Your task to perform on an android device: Clear the shopping cart on ebay.com. Add bose soundsport free to the cart on ebay.com, then select checkout. Image 0: 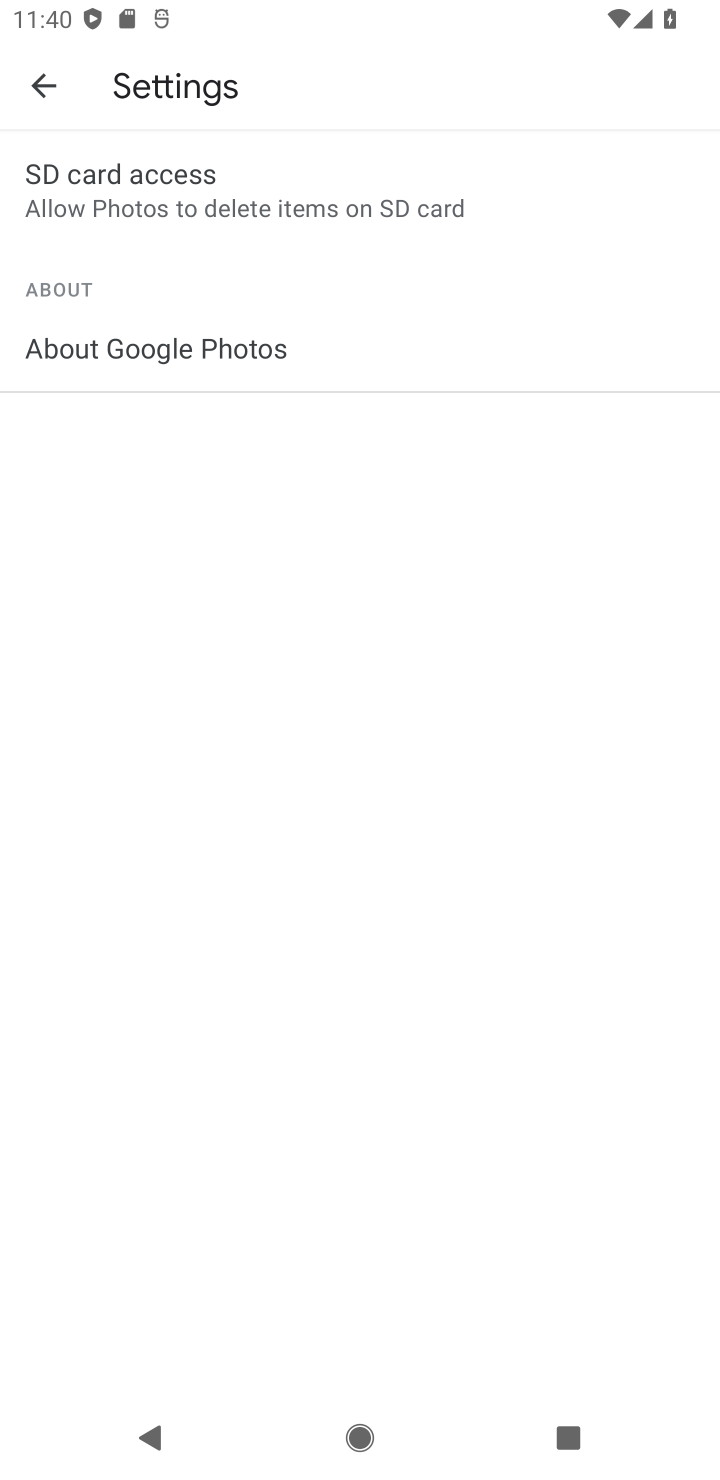
Step 0: press home button
Your task to perform on an android device: Clear the shopping cart on ebay.com. Add bose soundsport free to the cart on ebay.com, then select checkout. Image 1: 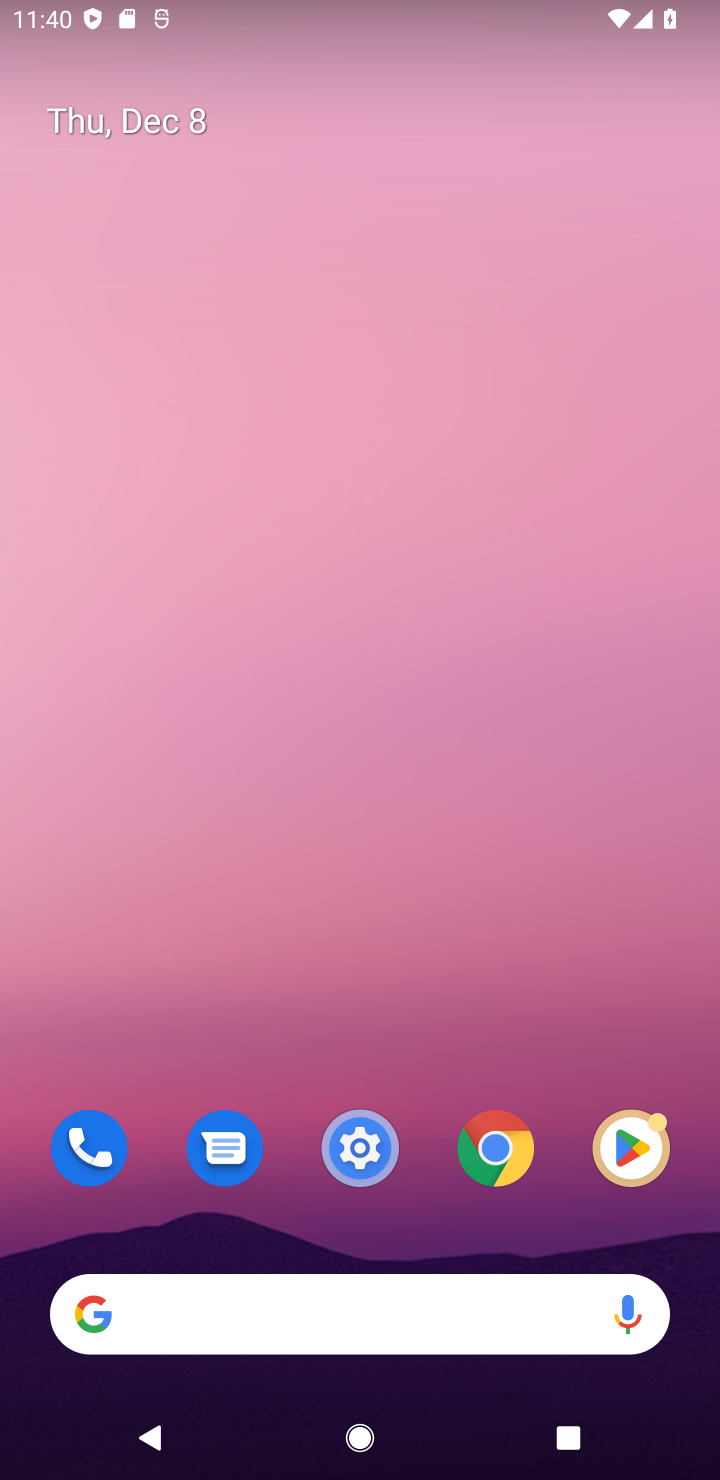
Step 1: click (240, 1333)
Your task to perform on an android device: Clear the shopping cart on ebay.com. Add bose soundsport free to the cart on ebay.com, then select checkout. Image 2: 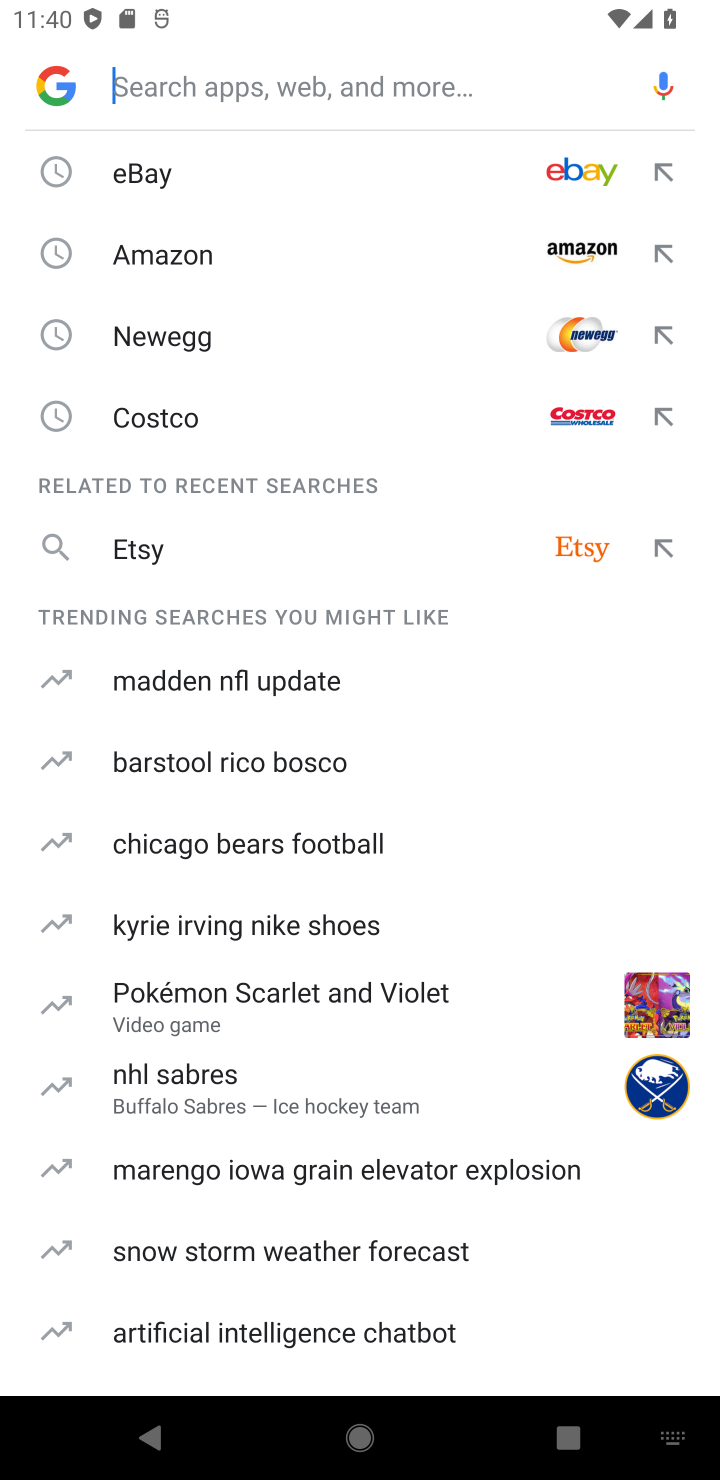
Step 2: click (140, 180)
Your task to perform on an android device: Clear the shopping cart on ebay.com. Add bose soundsport free to the cart on ebay.com, then select checkout. Image 3: 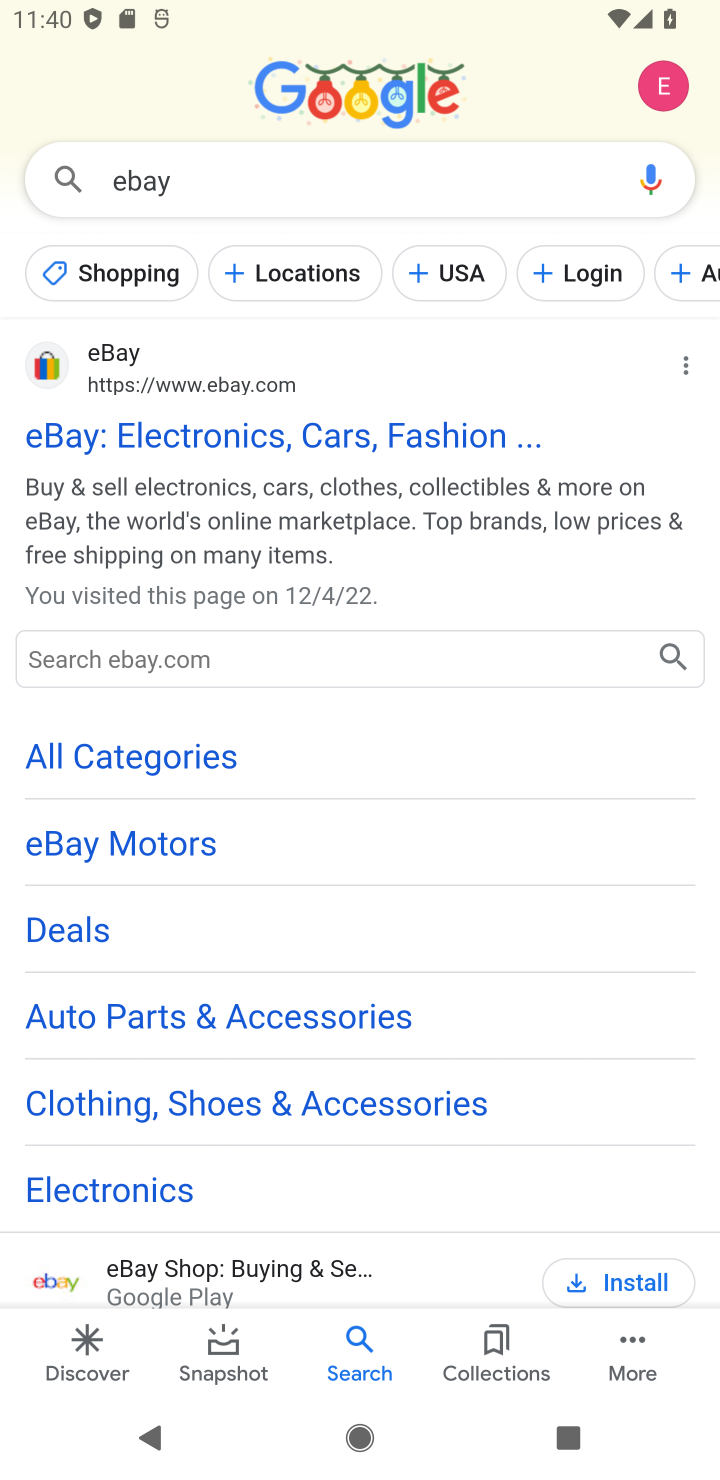
Step 3: click (219, 431)
Your task to perform on an android device: Clear the shopping cart on ebay.com. Add bose soundsport free to the cart on ebay.com, then select checkout. Image 4: 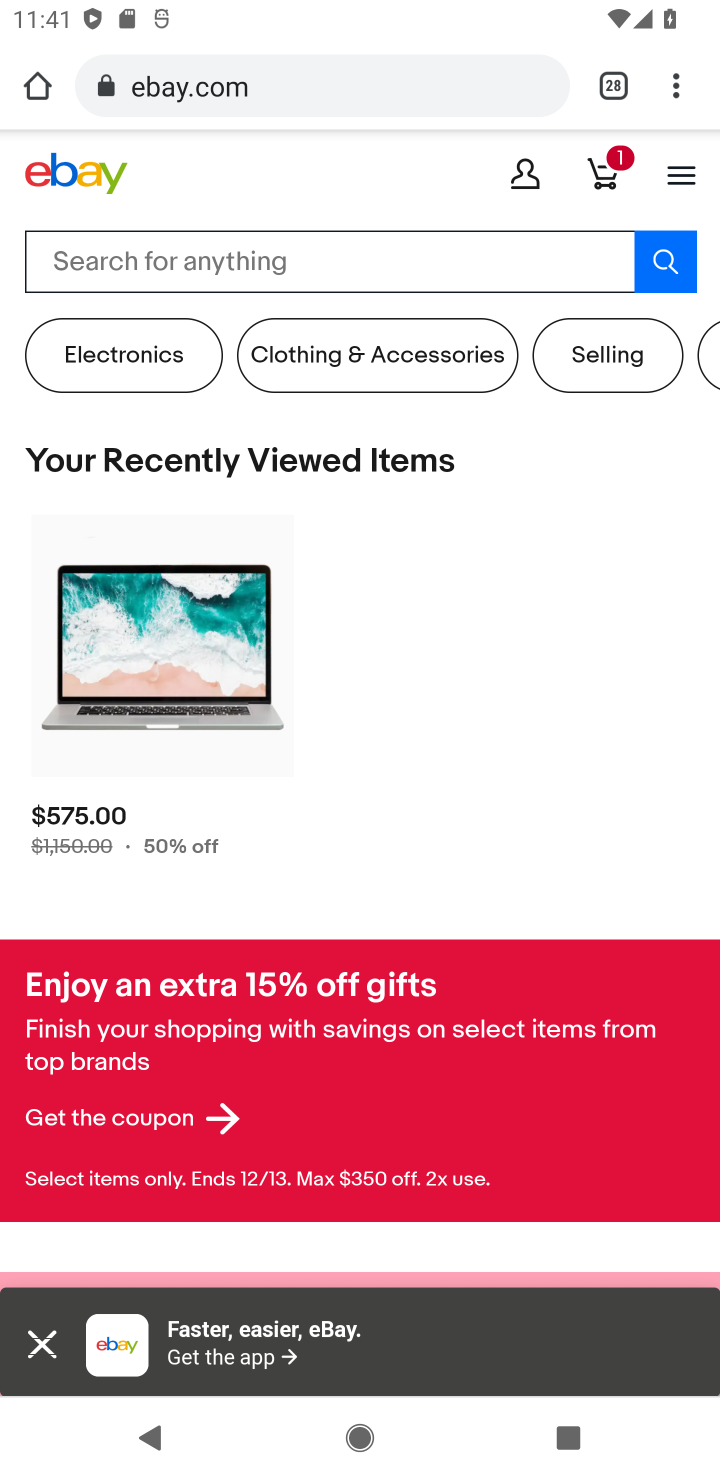
Step 4: click (607, 173)
Your task to perform on an android device: Clear the shopping cart on ebay.com. Add bose soundsport free to the cart on ebay.com, then select checkout. Image 5: 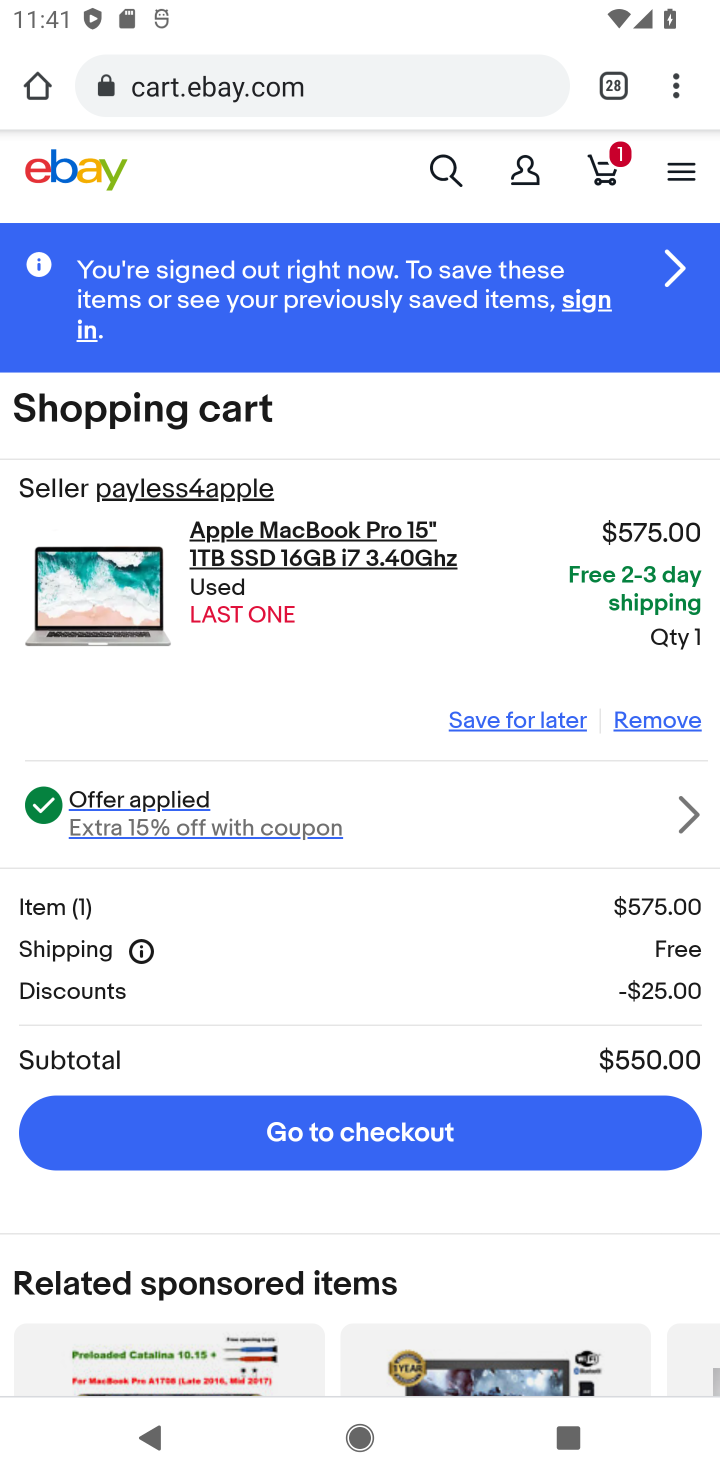
Step 5: click (630, 693)
Your task to perform on an android device: Clear the shopping cart on ebay.com. Add bose soundsport free to the cart on ebay.com, then select checkout. Image 6: 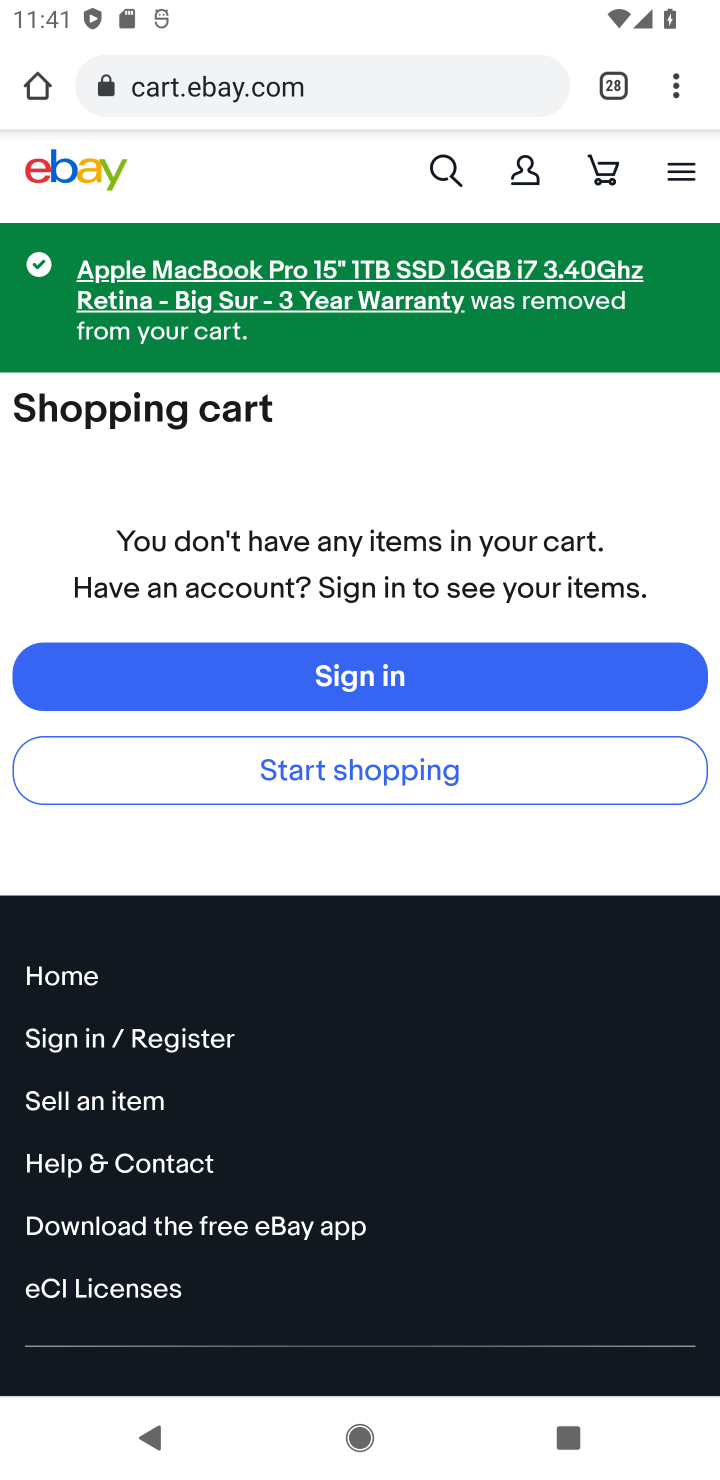
Step 6: click (444, 172)
Your task to perform on an android device: Clear the shopping cart on ebay.com. Add bose soundsport free to the cart on ebay.com, then select checkout. Image 7: 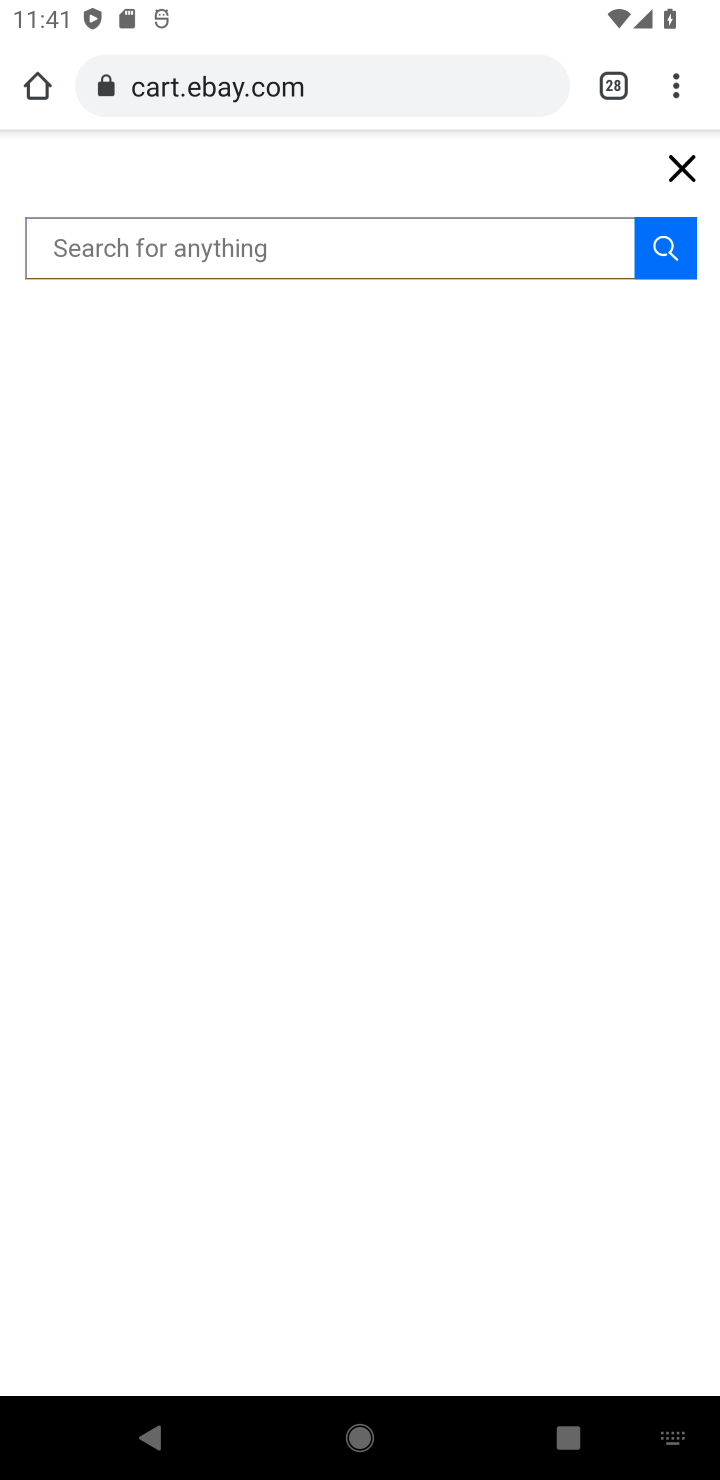
Step 7: type "bose soundsport"
Your task to perform on an android device: Clear the shopping cart on ebay.com. Add bose soundsport free to the cart on ebay.com, then select checkout. Image 8: 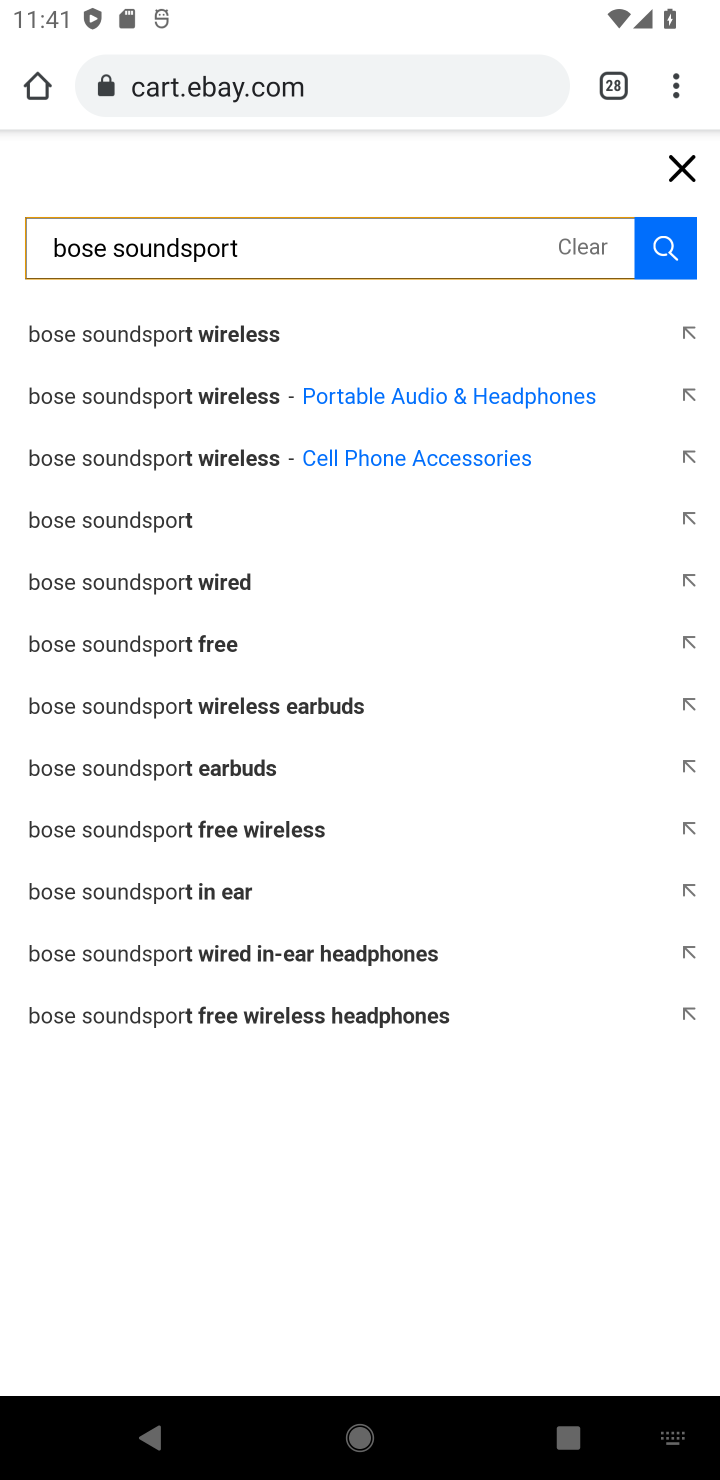
Step 8: click (198, 647)
Your task to perform on an android device: Clear the shopping cart on ebay.com. Add bose soundsport free to the cart on ebay.com, then select checkout. Image 9: 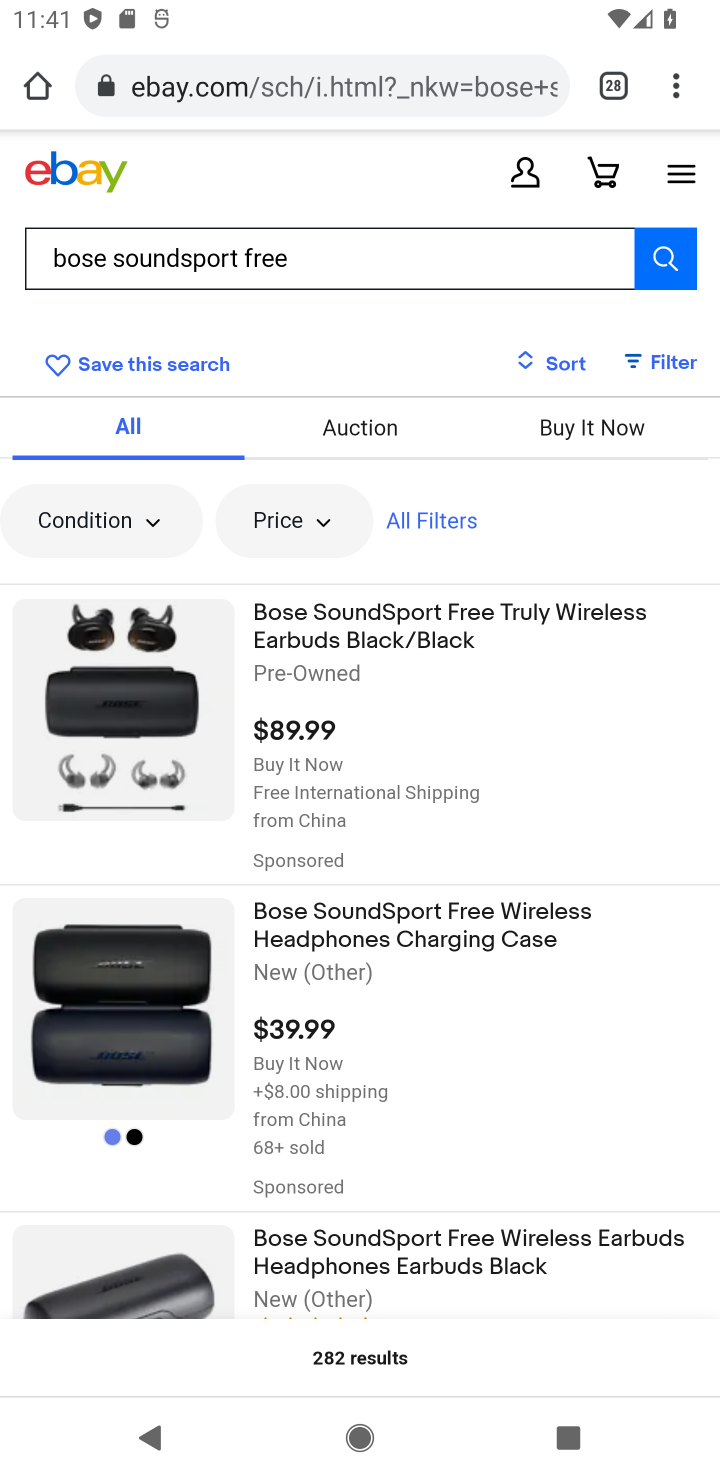
Step 9: click (384, 644)
Your task to perform on an android device: Clear the shopping cart on ebay.com. Add bose soundsport free to the cart on ebay.com, then select checkout. Image 10: 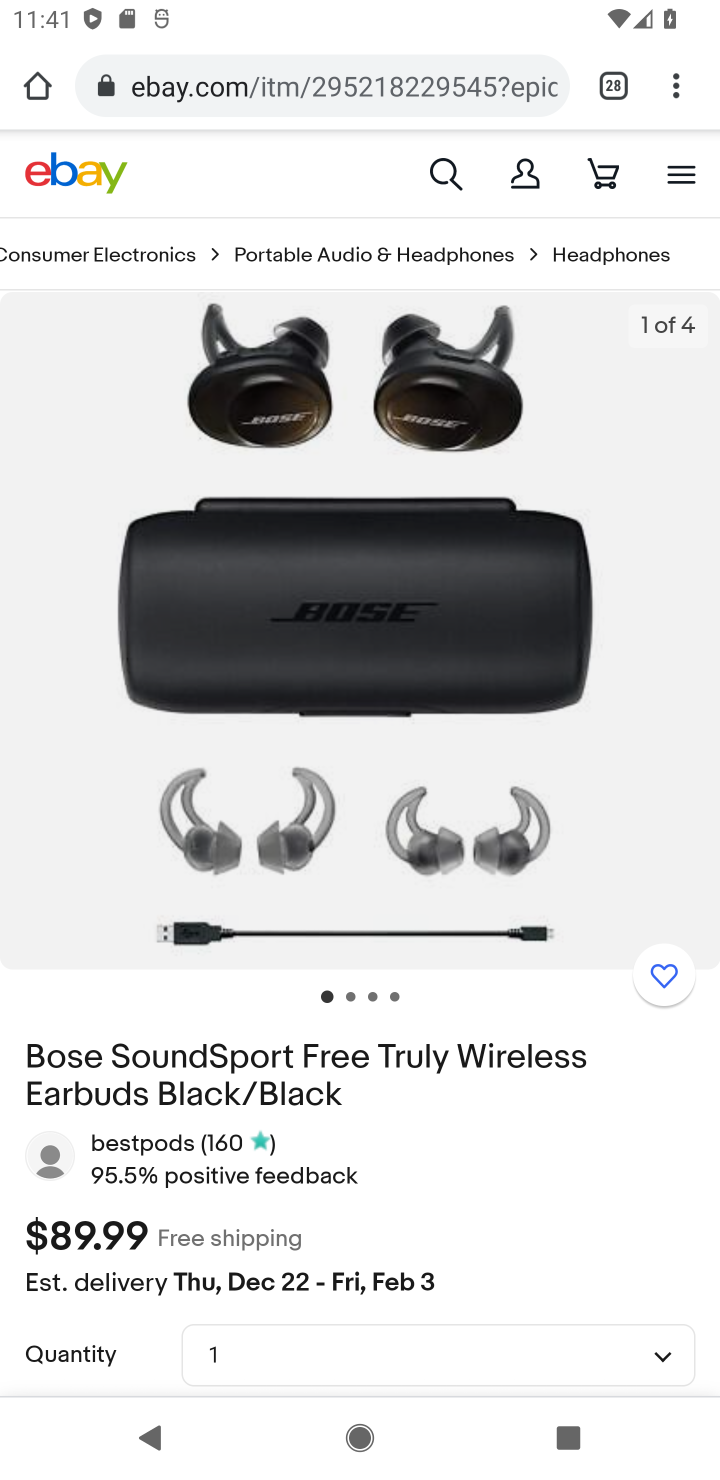
Step 10: drag from (494, 1182) to (445, 733)
Your task to perform on an android device: Clear the shopping cart on ebay.com. Add bose soundsport free to the cart on ebay.com, then select checkout. Image 11: 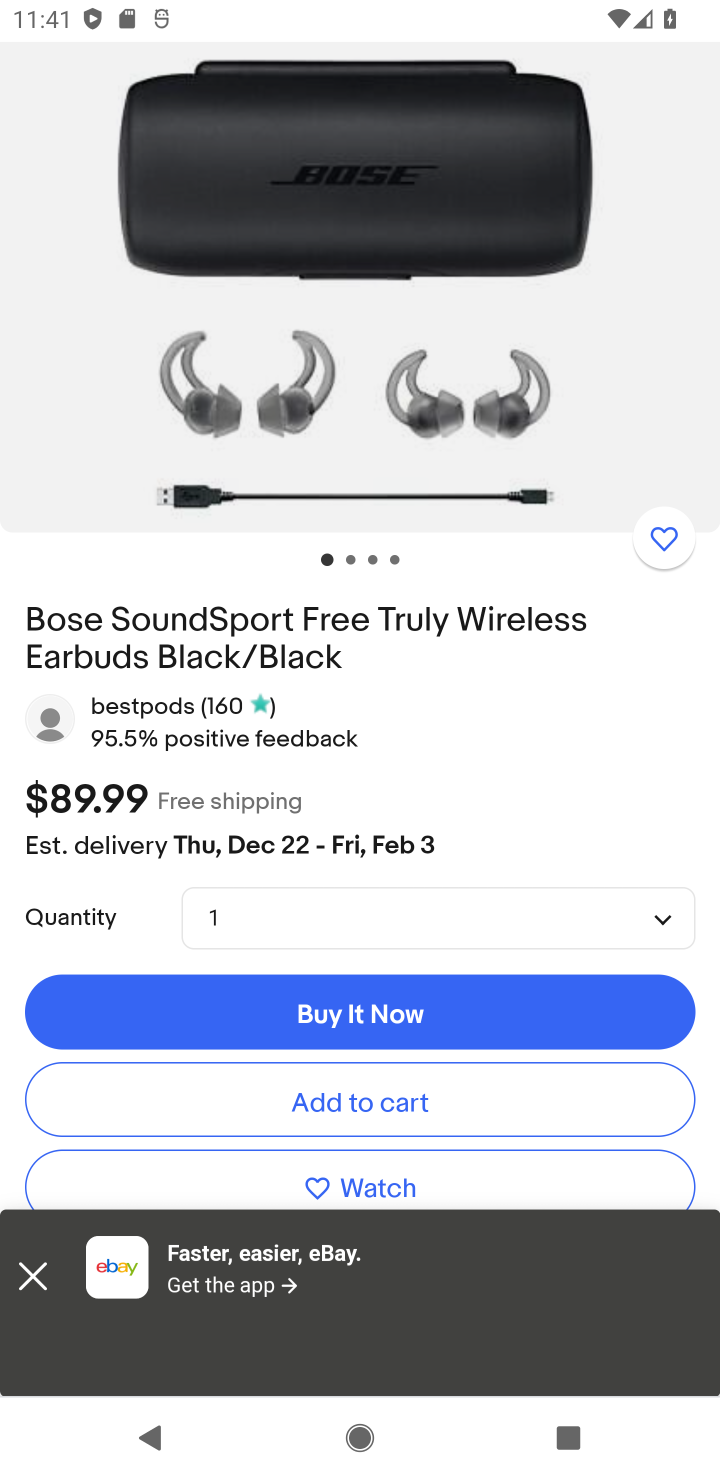
Step 11: click (369, 1099)
Your task to perform on an android device: Clear the shopping cart on ebay.com. Add bose soundsport free to the cart on ebay.com, then select checkout. Image 12: 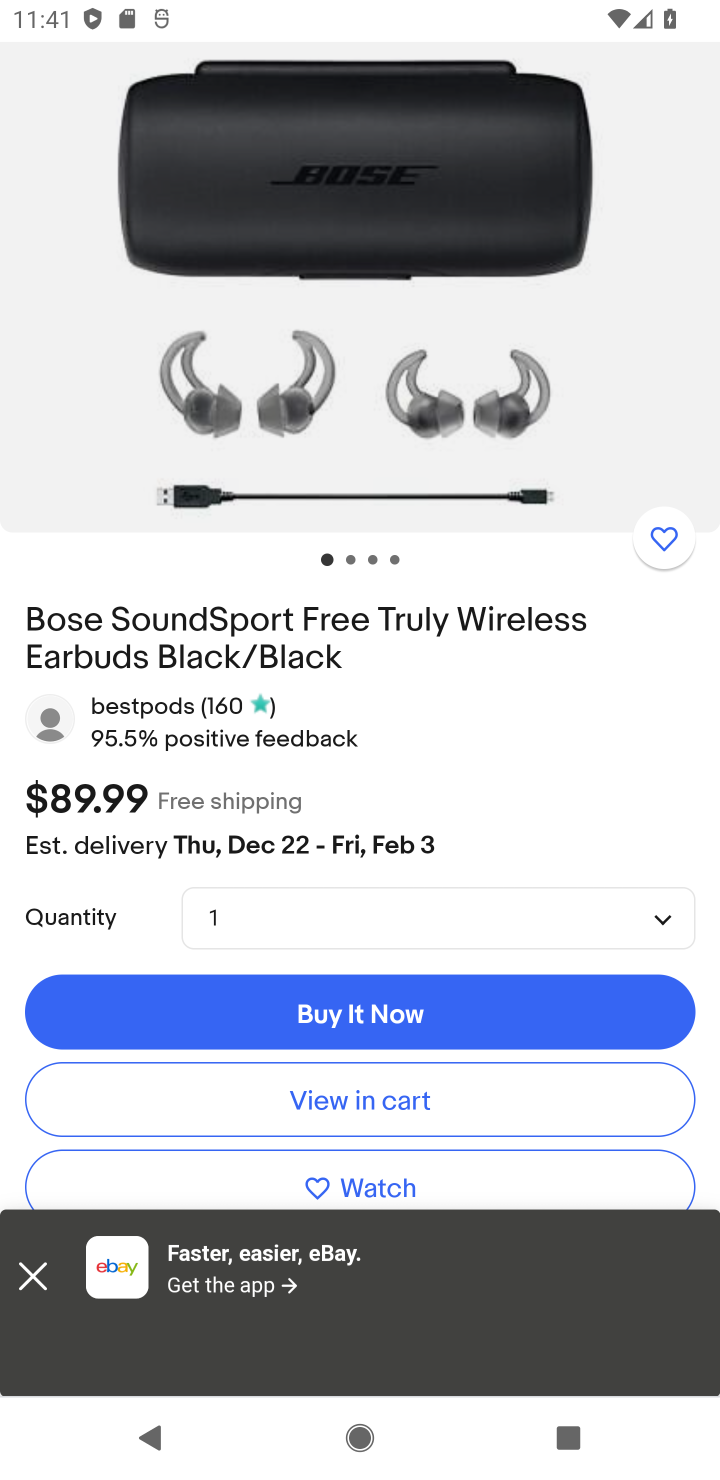
Step 12: click (413, 1097)
Your task to perform on an android device: Clear the shopping cart on ebay.com. Add bose soundsport free to the cart on ebay.com, then select checkout. Image 13: 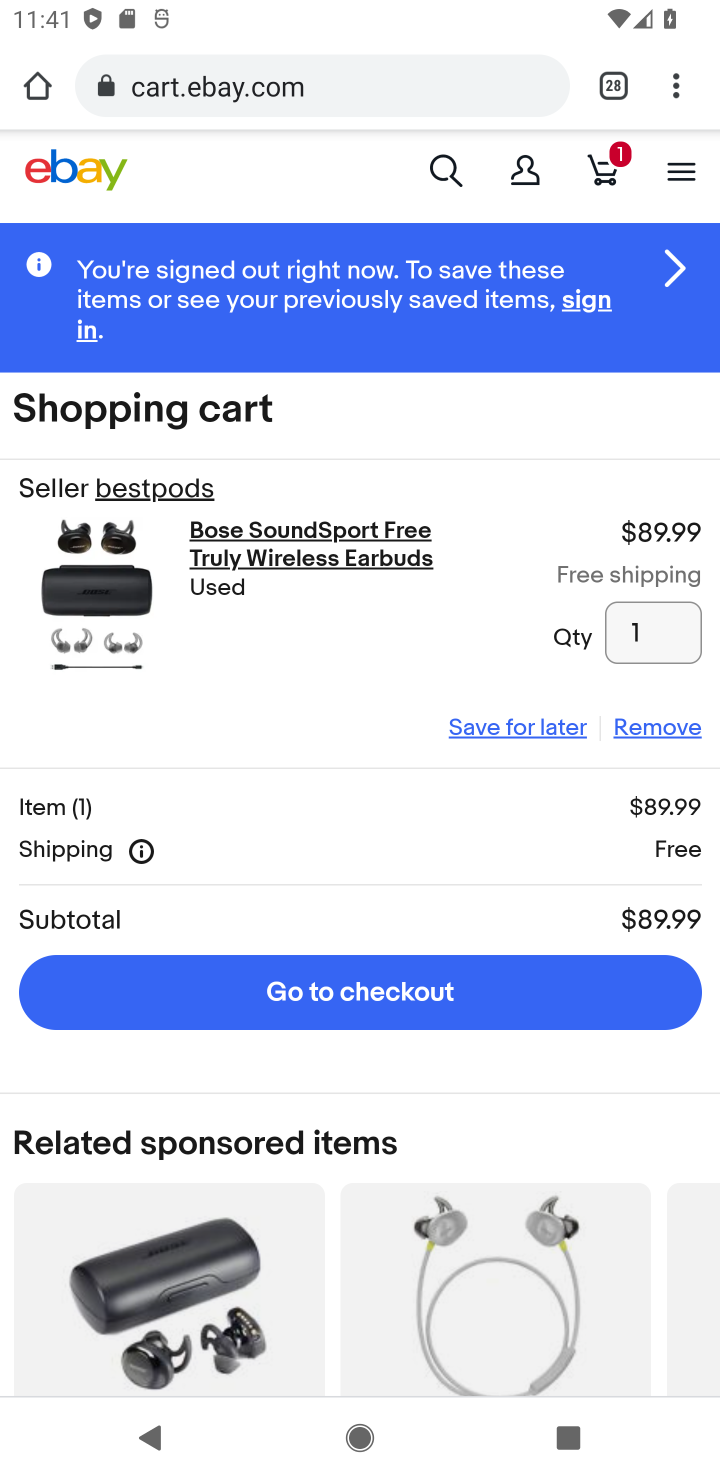
Step 13: click (400, 981)
Your task to perform on an android device: Clear the shopping cart on ebay.com. Add bose soundsport free to the cart on ebay.com, then select checkout. Image 14: 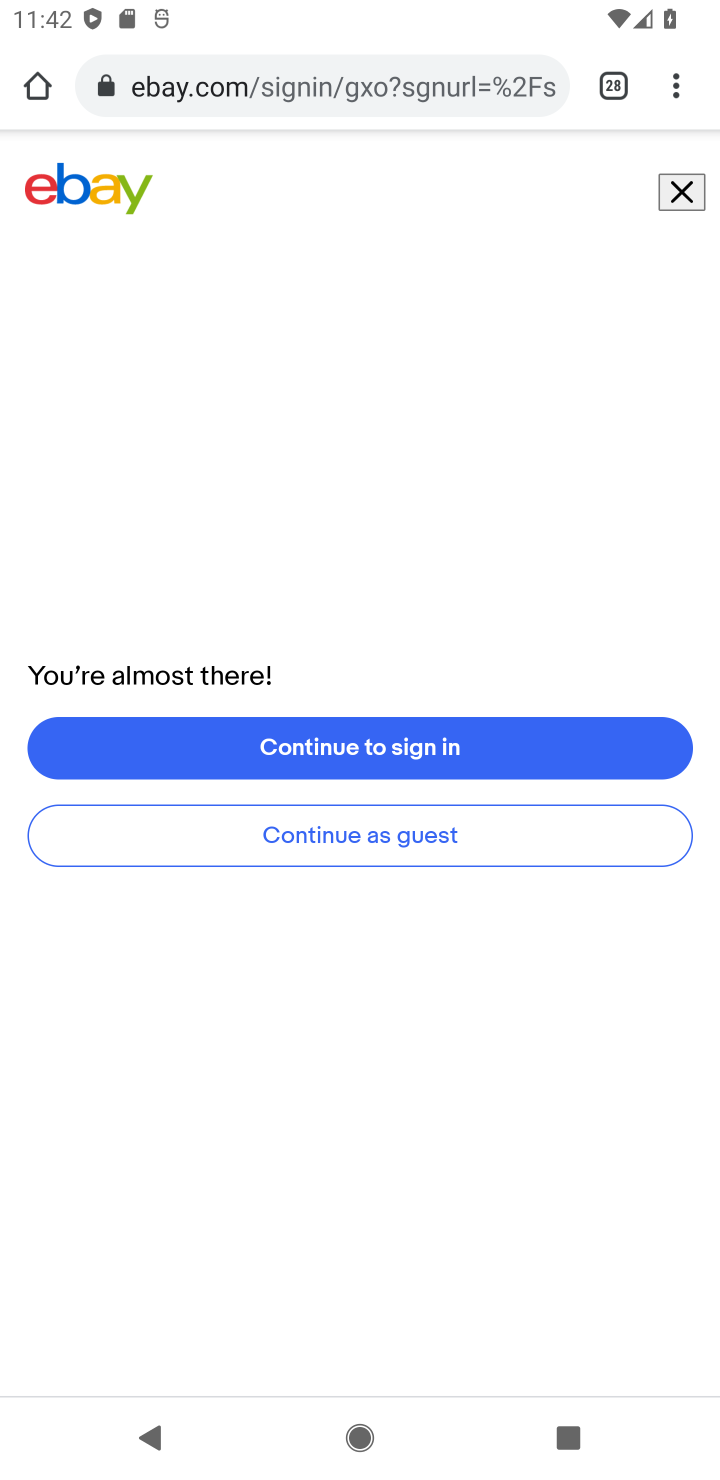
Step 14: task complete